Your task to perform on an android device: turn off wifi Image 0: 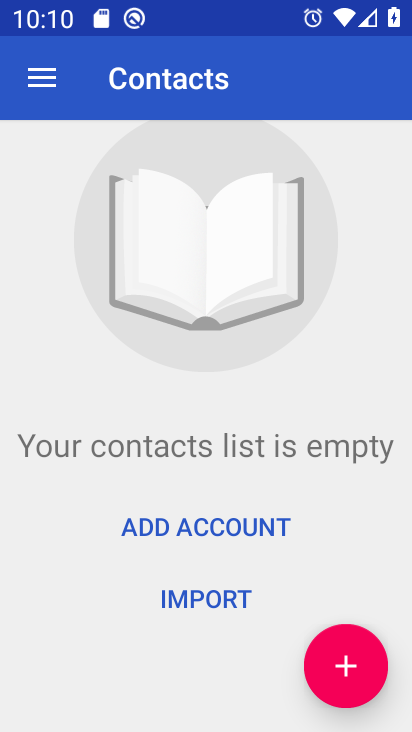
Step 0: press home button
Your task to perform on an android device: turn off wifi Image 1: 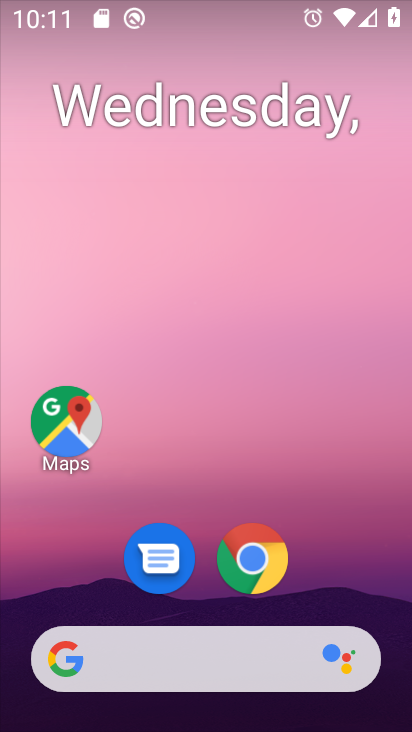
Step 1: drag from (343, 571) to (382, 104)
Your task to perform on an android device: turn off wifi Image 2: 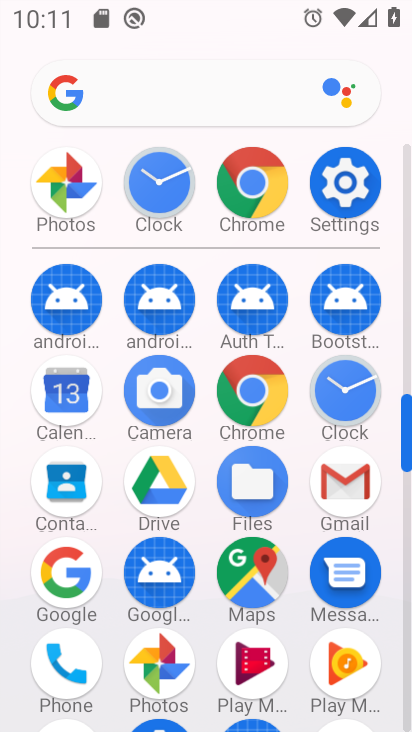
Step 2: click (351, 192)
Your task to perform on an android device: turn off wifi Image 3: 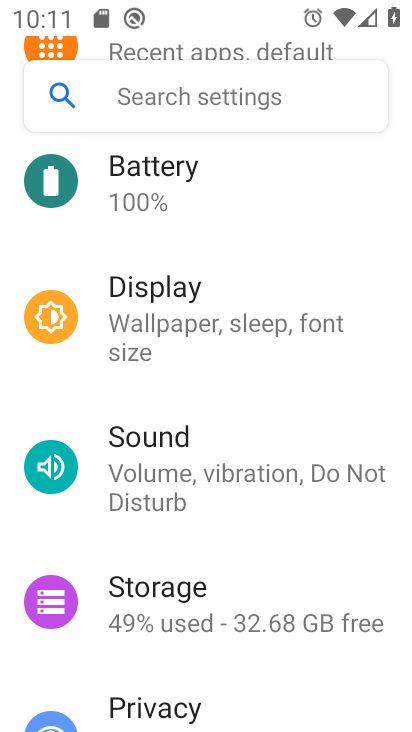
Step 3: drag from (351, 192) to (353, 307)
Your task to perform on an android device: turn off wifi Image 4: 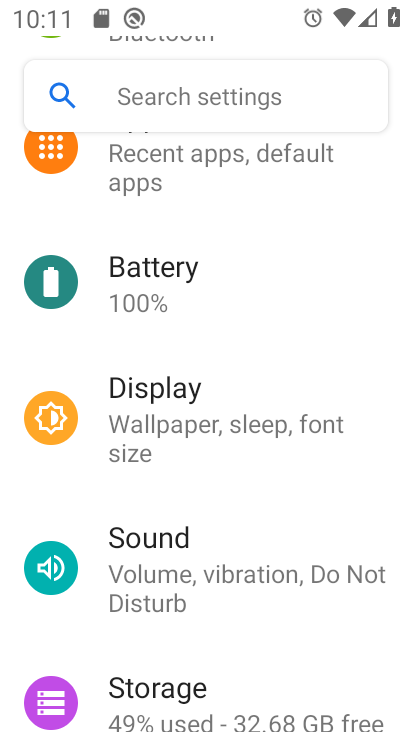
Step 4: drag from (362, 207) to (365, 339)
Your task to perform on an android device: turn off wifi Image 5: 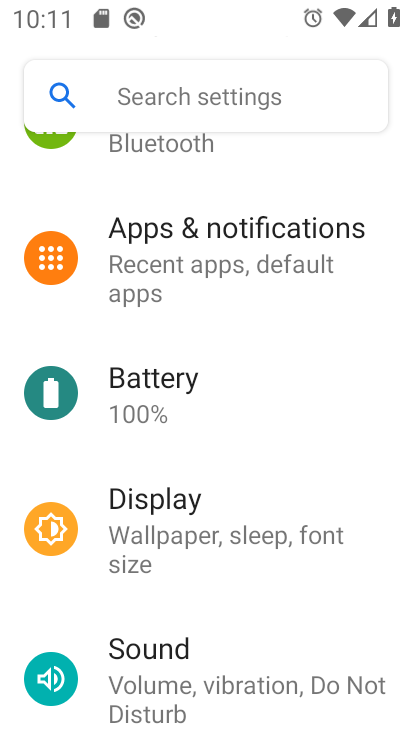
Step 5: drag from (373, 186) to (368, 328)
Your task to perform on an android device: turn off wifi Image 6: 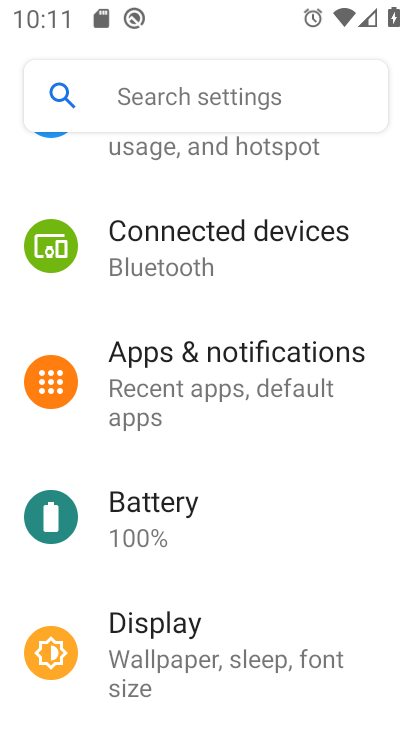
Step 6: drag from (364, 192) to (371, 345)
Your task to perform on an android device: turn off wifi Image 7: 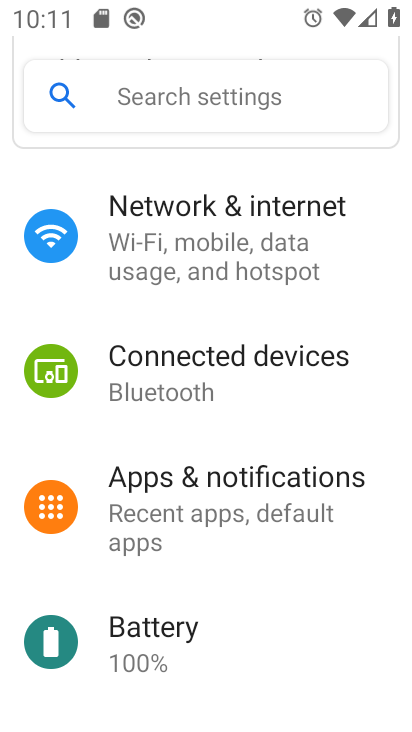
Step 7: drag from (371, 252) to (376, 429)
Your task to perform on an android device: turn off wifi Image 8: 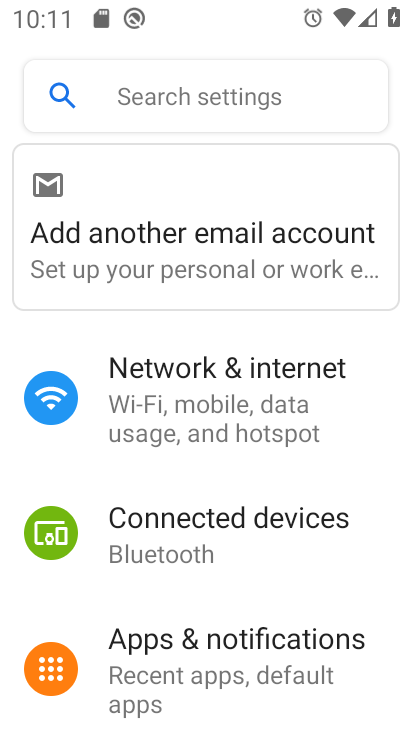
Step 8: click (284, 399)
Your task to perform on an android device: turn off wifi Image 9: 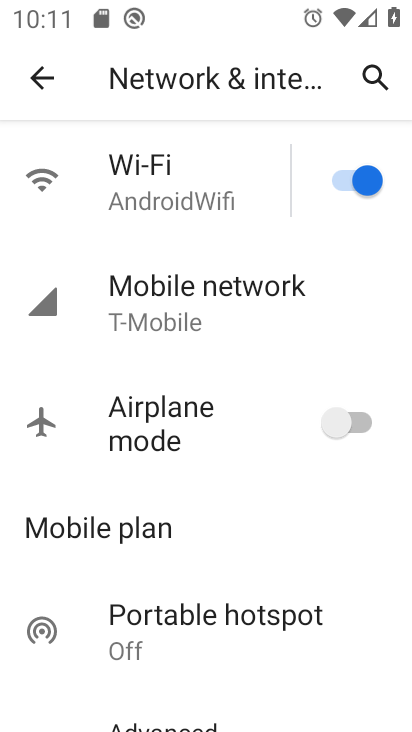
Step 9: click (372, 179)
Your task to perform on an android device: turn off wifi Image 10: 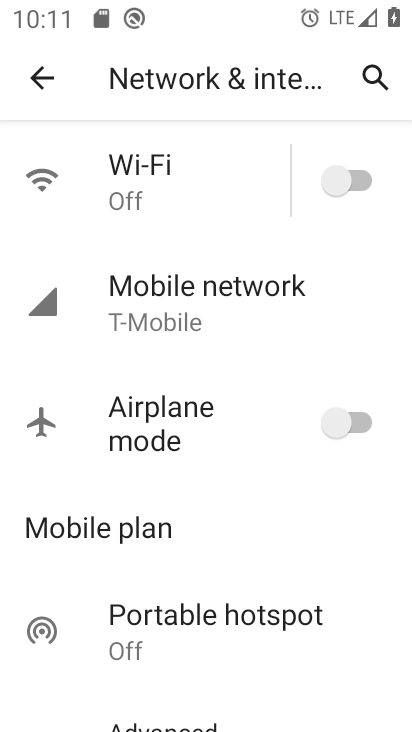
Step 10: task complete